Your task to perform on an android device: check the backup settings in the google photos Image 0: 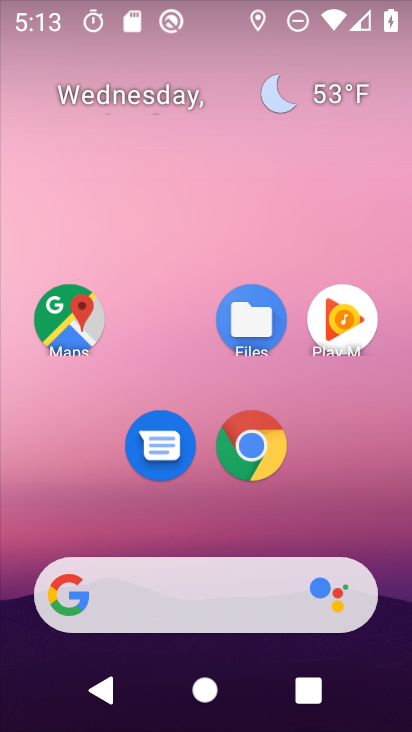
Step 0: drag from (354, 495) to (369, 167)
Your task to perform on an android device: check the backup settings in the google photos Image 1: 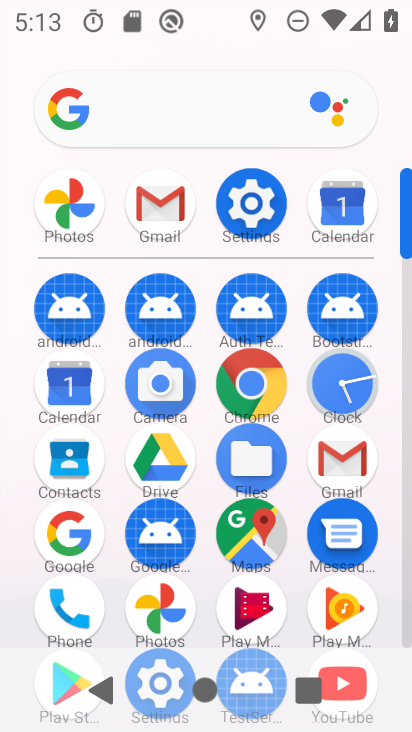
Step 1: click (70, 202)
Your task to perform on an android device: check the backup settings in the google photos Image 2: 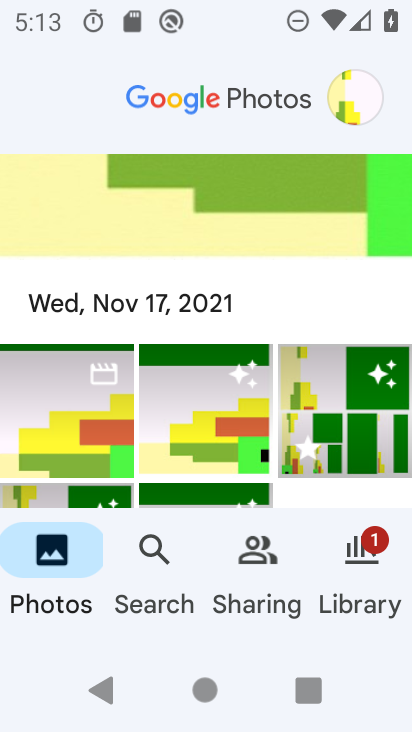
Step 2: click (366, 118)
Your task to perform on an android device: check the backup settings in the google photos Image 3: 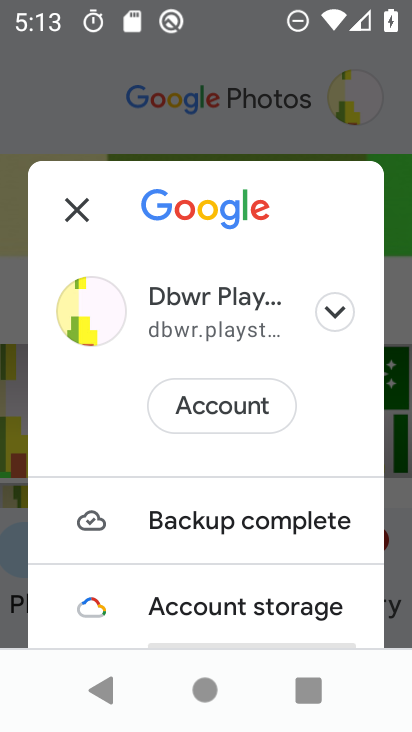
Step 3: click (255, 504)
Your task to perform on an android device: check the backup settings in the google photos Image 4: 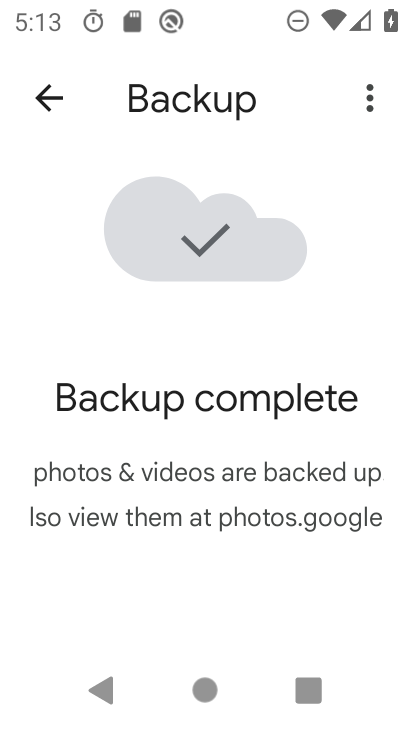
Step 4: task complete